Your task to perform on an android device: Open Reddit.com Image 0: 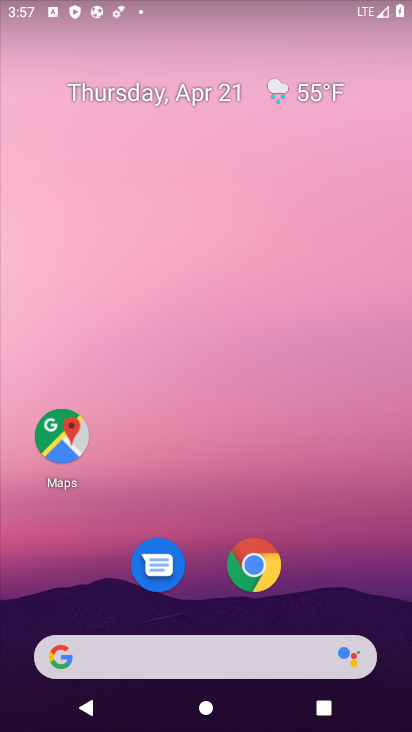
Step 0: click (264, 656)
Your task to perform on an android device: Open Reddit.com Image 1: 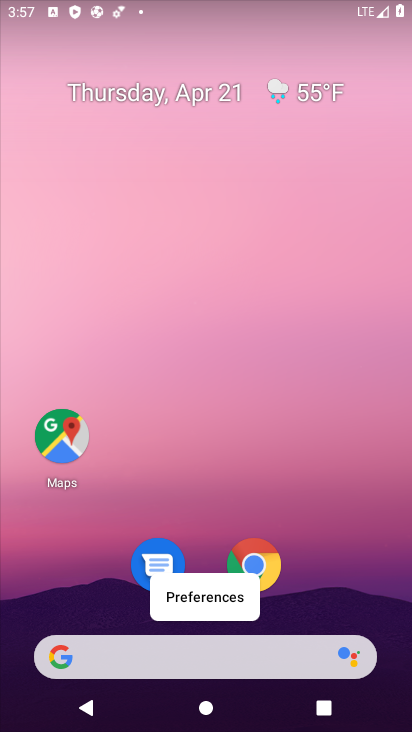
Step 1: click (270, 662)
Your task to perform on an android device: Open Reddit.com Image 2: 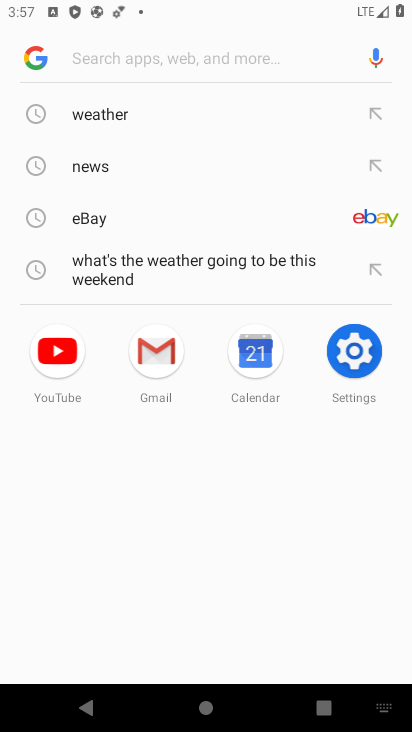
Step 2: type "reddit.com"
Your task to perform on an android device: Open Reddit.com Image 3: 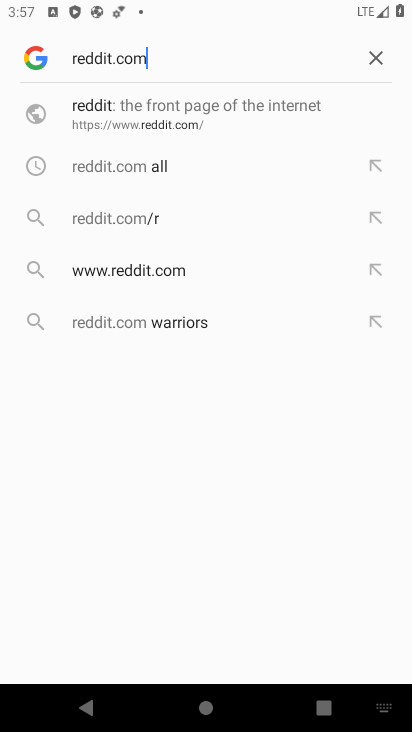
Step 3: click (212, 119)
Your task to perform on an android device: Open Reddit.com Image 4: 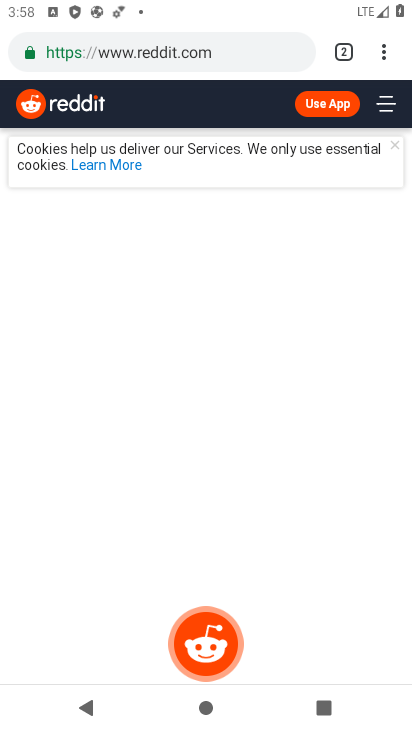
Step 4: task complete